Your task to perform on an android device: set the timer Image 0: 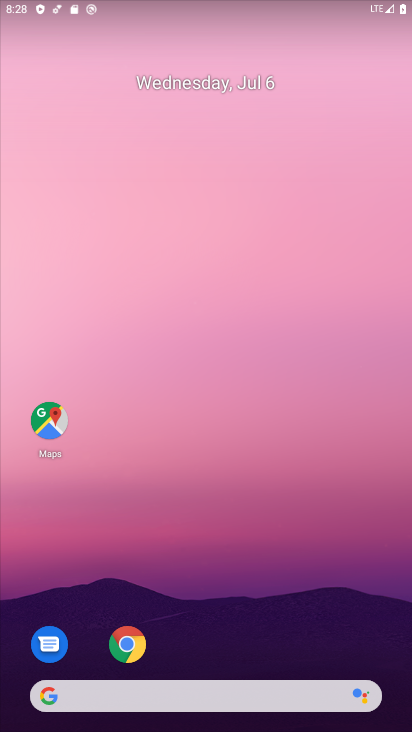
Step 0: drag from (200, 638) to (200, 134)
Your task to perform on an android device: set the timer Image 1: 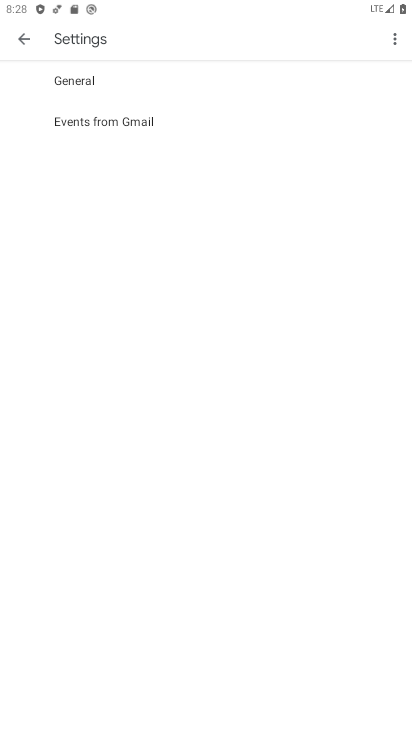
Step 1: press home button
Your task to perform on an android device: set the timer Image 2: 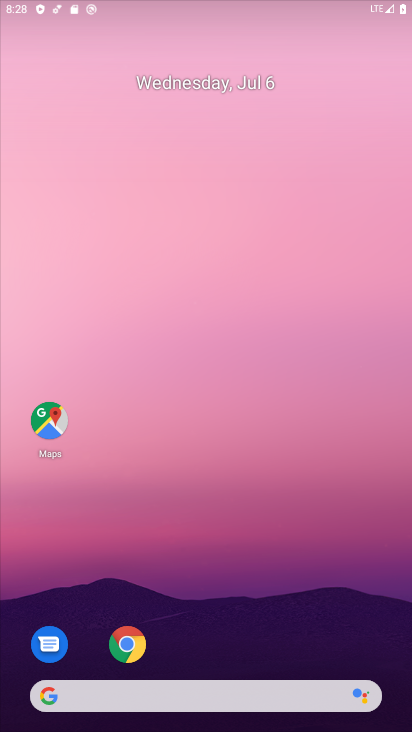
Step 2: drag from (179, 650) to (187, 161)
Your task to perform on an android device: set the timer Image 3: 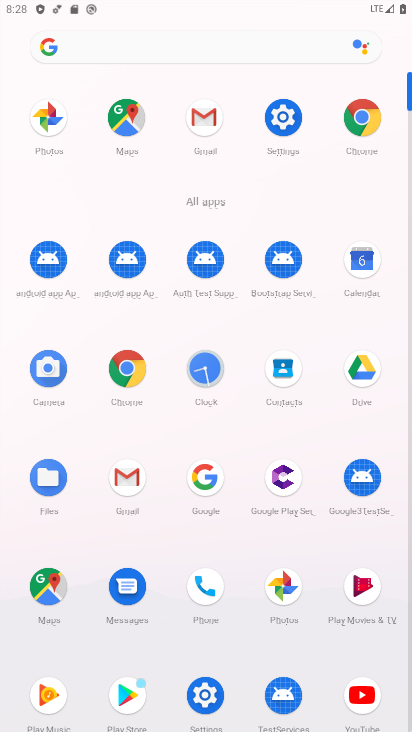
Step 3: click (205, 381)
Your task to perform on an android device: set the timer Image 4: 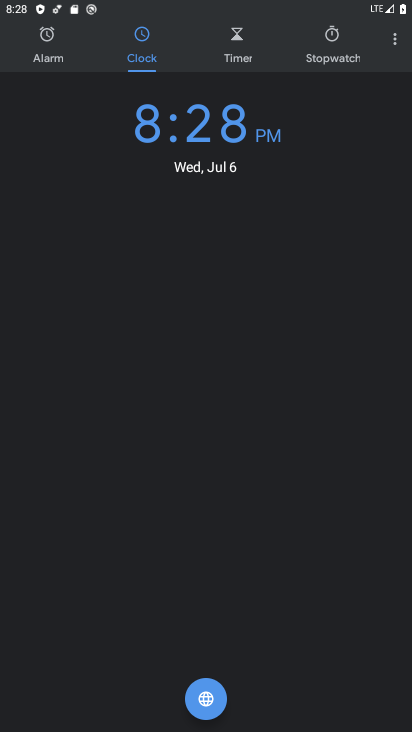
Step 4: click (227, 28)
Your task to perform on an android device: set the timer Image 5: 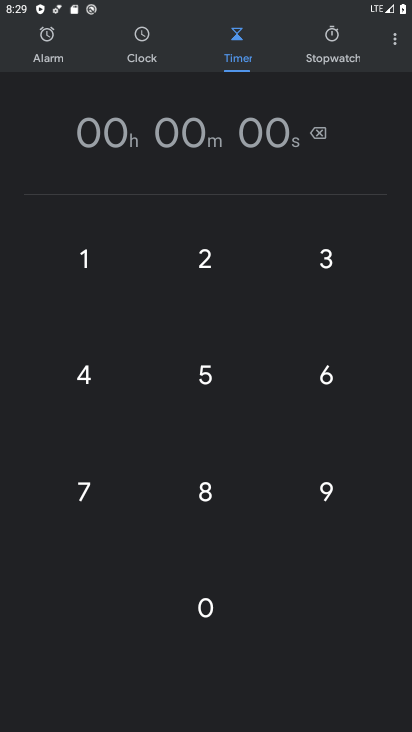
Step 5: click (259, 136)
Your task to perform on an android device: set the timer Image 6: 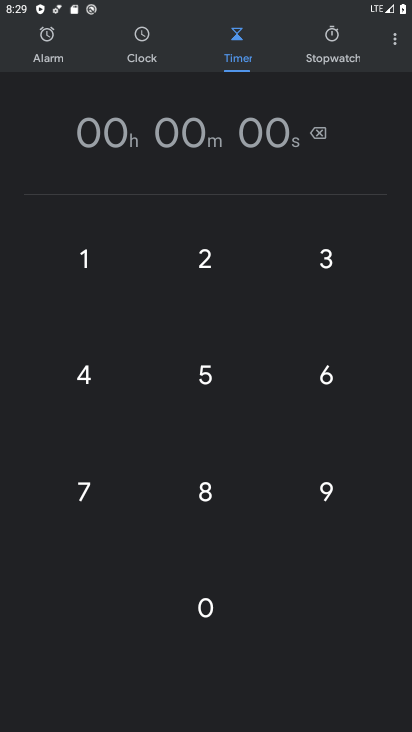
Step 6: type "20"
Your task to perform on an android device: set the timer Image 7: 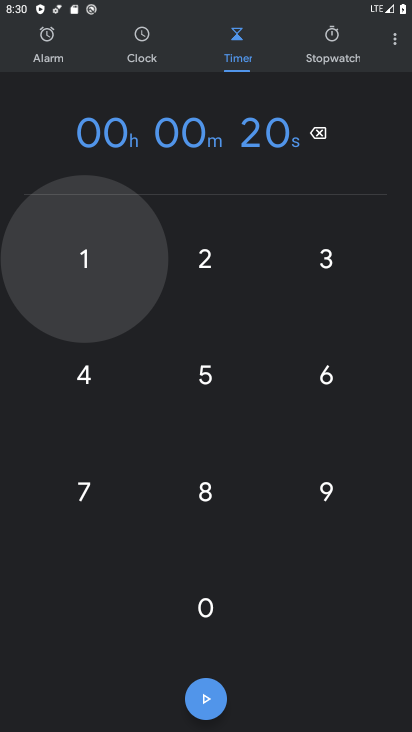
Step 7: click (201, 695)
Your task to perform on an android device: set the timer Image 8: 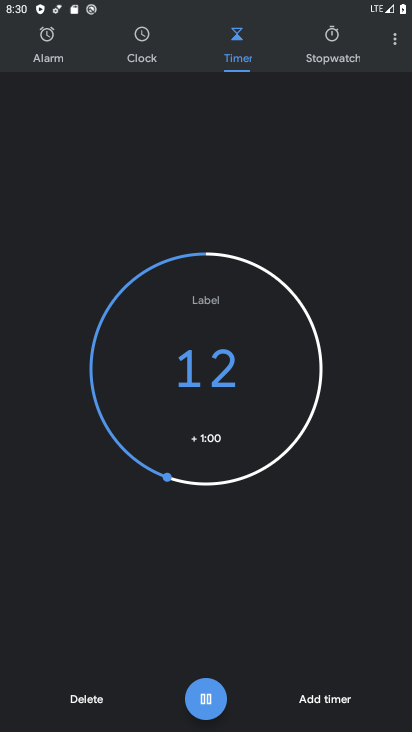
Step 8: task complete